Your task to perform on an android device: Show me the best 1080p monitor on Target.com Image 0: 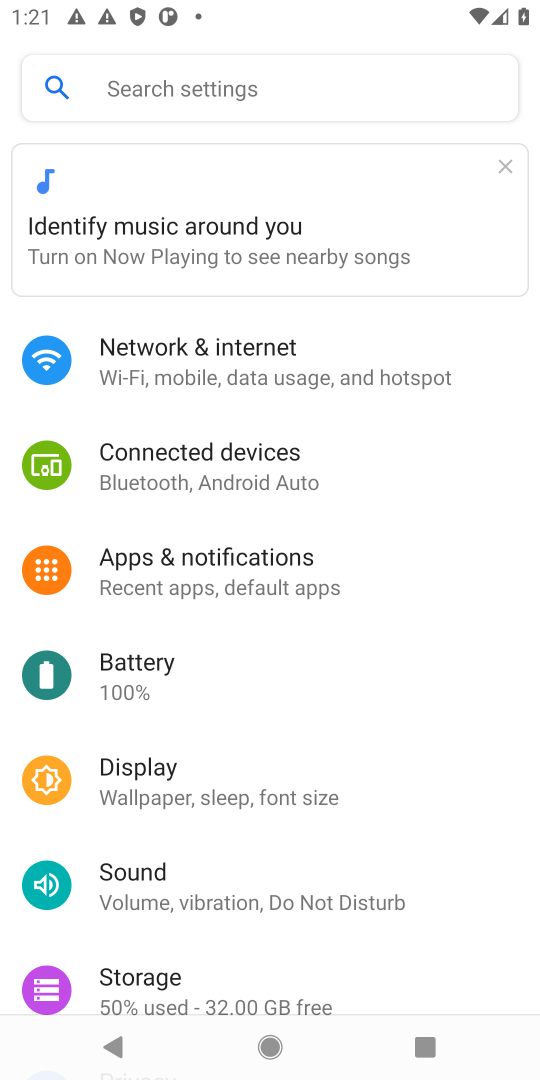
Step 0: press home button
Your task to perform on an android device: Show me the best 1080p monitor on Target.com Image 1: 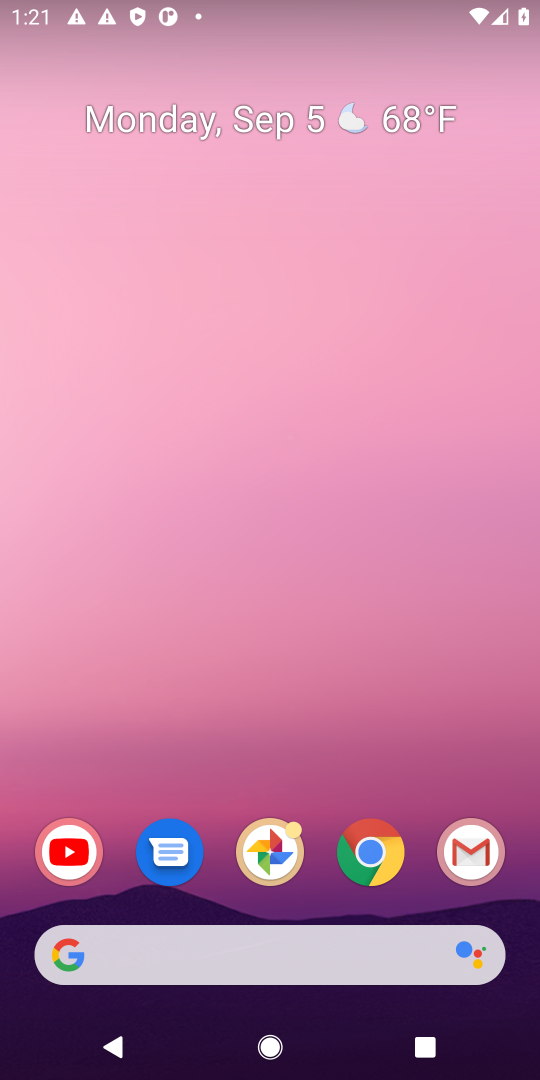
Step 1: click (373, 849)
Your task to perform on an android device: Show me the best 1080p monitor on Target.com Image 2: 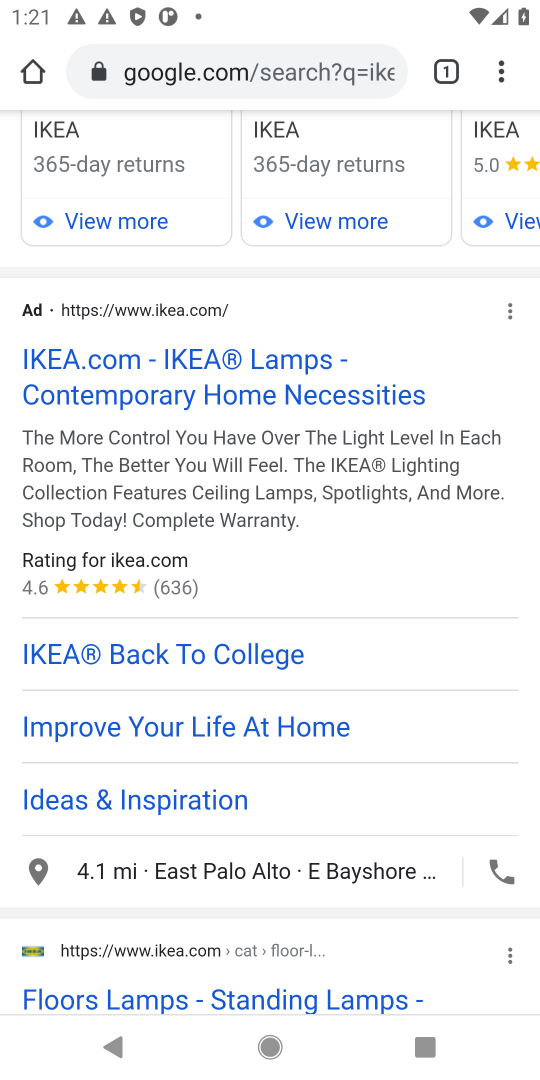
Step 2: click (288, 52)
Your task to perform on an android device: Show me the best 1080p monitor on Target.com Image 3: 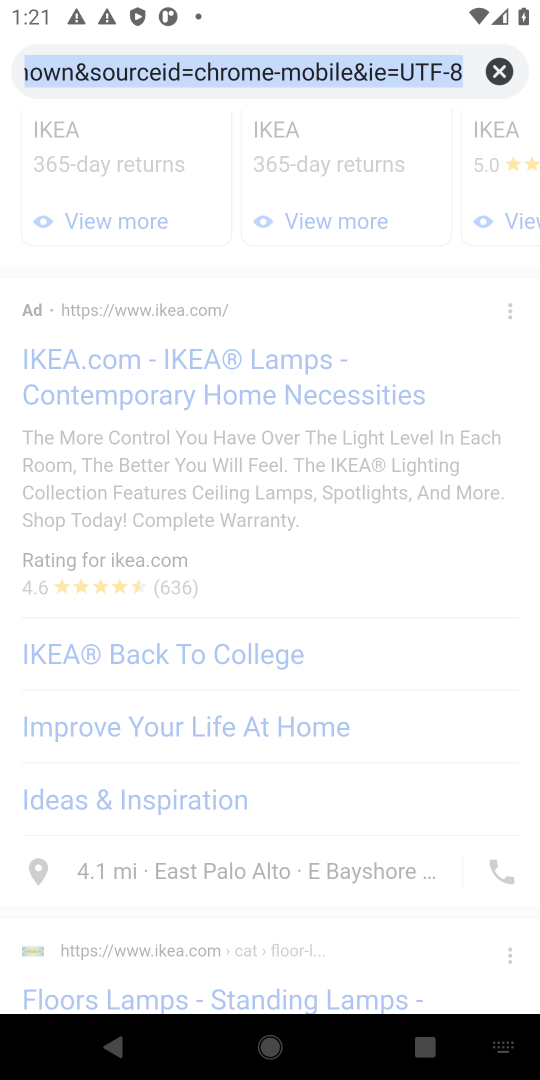
Step 3: click (498, 68)
Your task to perform on an android device: Show me the best 1080p monitor on Target.com Image 4: 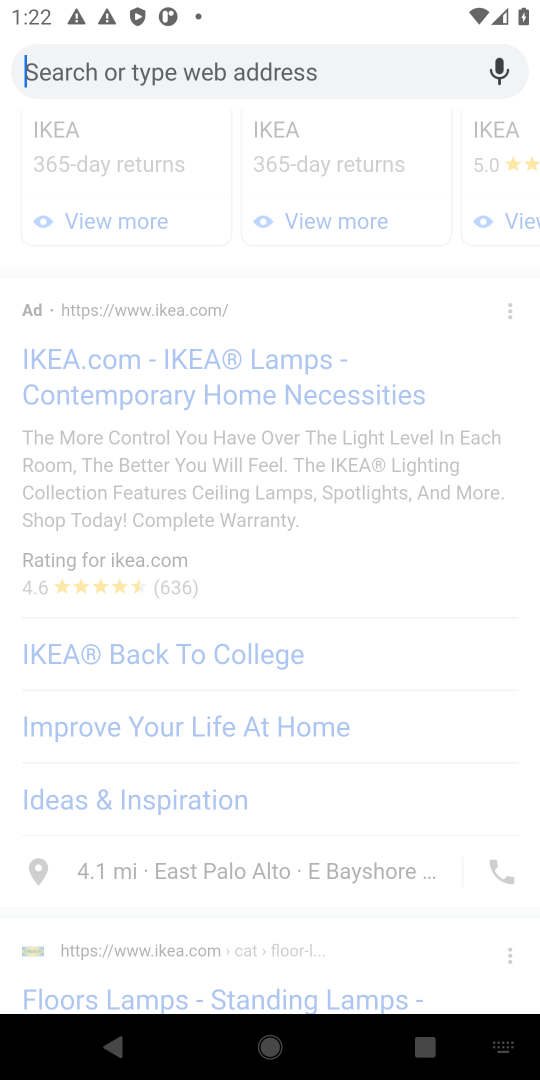
Step 4: type "Target.com"
Your task to perform on an android device: Show me the best 1080p monitor on Target.com Image 5: 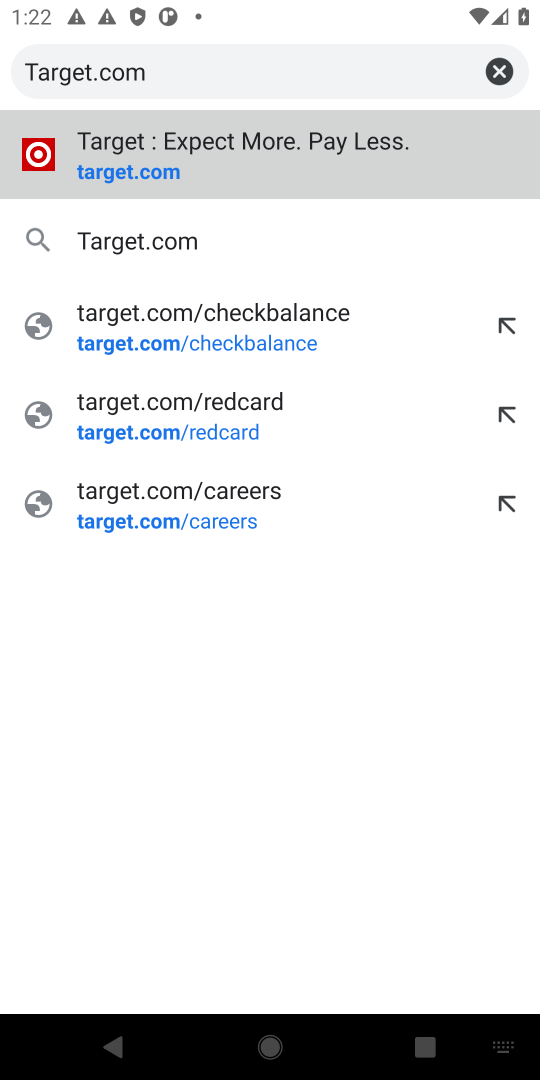
Step 5: click (133, 143)
Your task to perform on an android device: Show me the best 1080p monitor on Target.com Image 6: 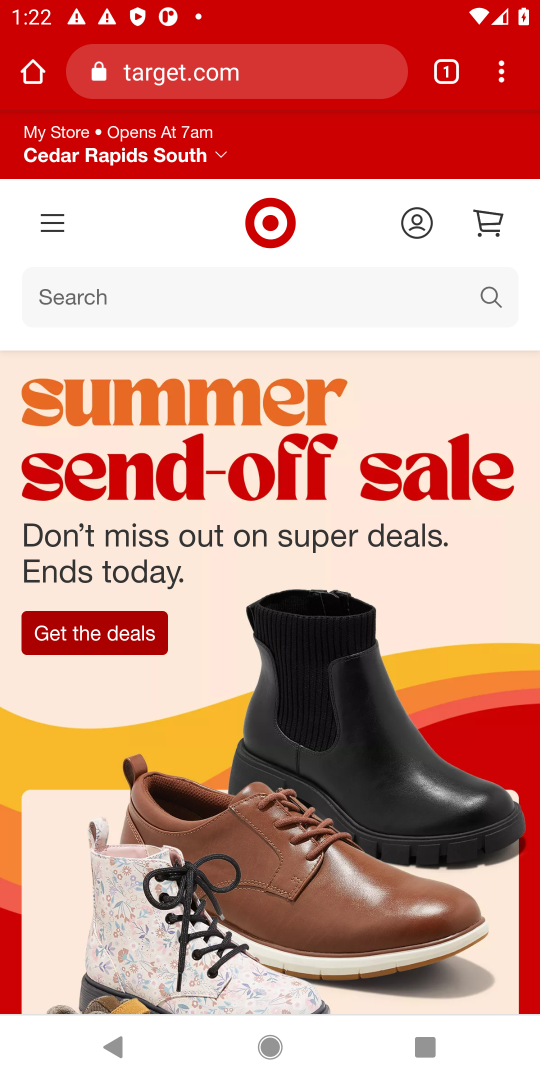
Step 6: click (83, 293)
Your task to perform on an android device: Show me the best 1080p monitor on Target.com Image 7: 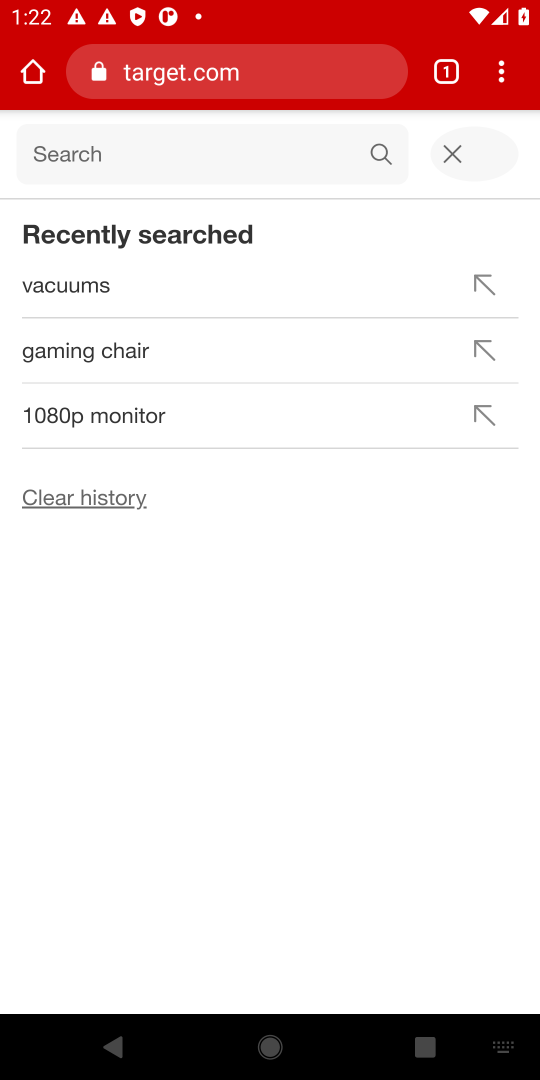
Step 7: type "1080p monitor"
Your task to perform on an android device: Show me the best 1080p monitor on Target.com Image 8: 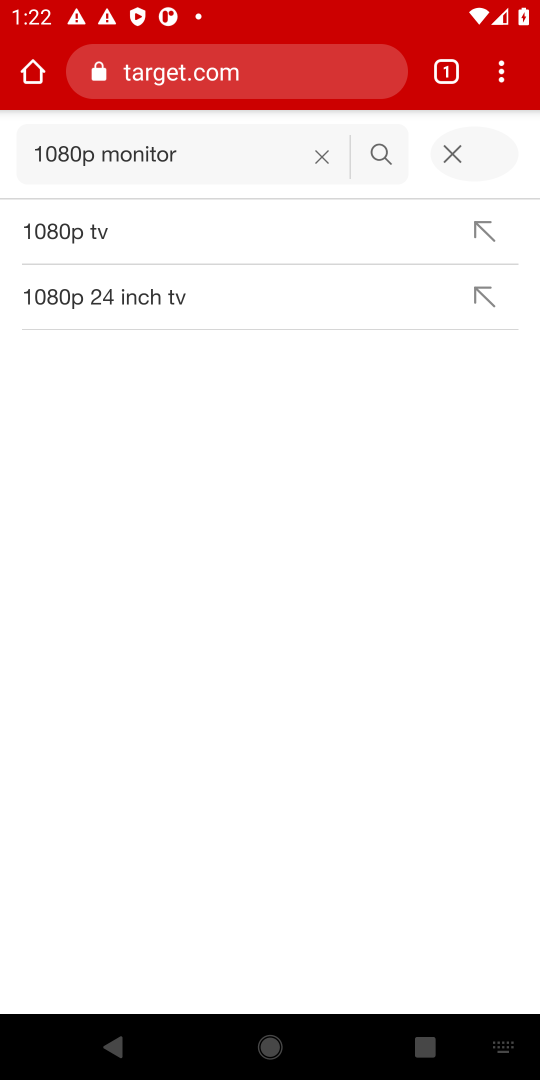
Step 8: click (380, 155)
Your task to perform on an android device: Show me the best 1080p monitor on Target.com Image 9: 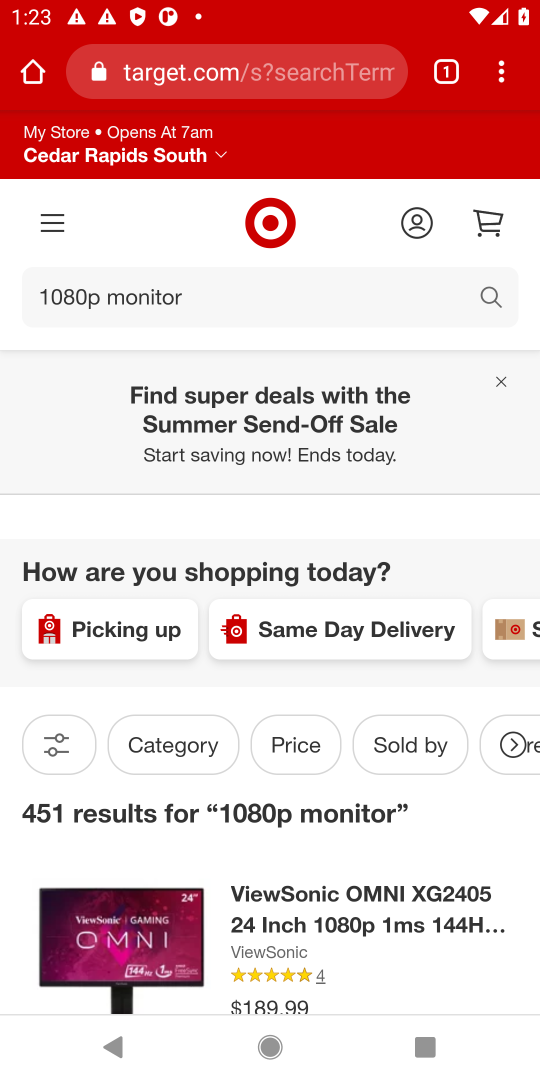
Step 9: task complete